Your task to perform on an android device: change text size in settings app Image 0: 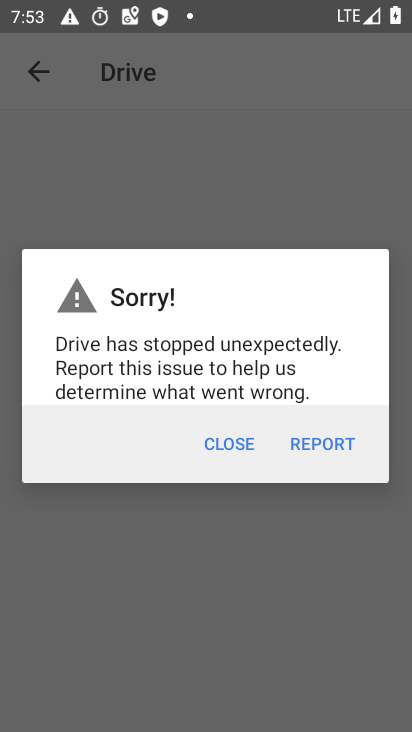
Step 0: drag from (146, 623) to (214, 172)
Your task to perform on an android device: change text size in settings app Image 1: 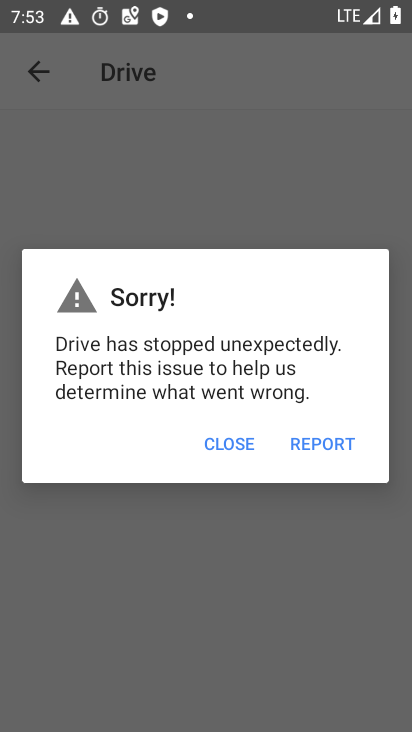
Step 1: press home button
Your task to perform on an android device: change text size in settings app Image 2: 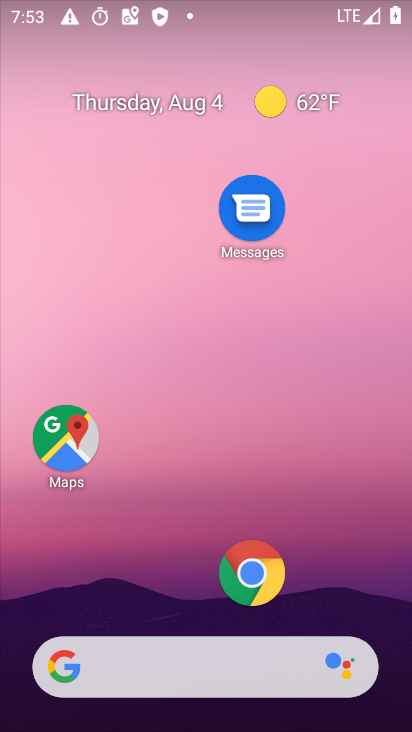
Step 2: drag from (152, 564) to (214, 62)
Your task to perform on an android device: change text size in settings app Image 3: 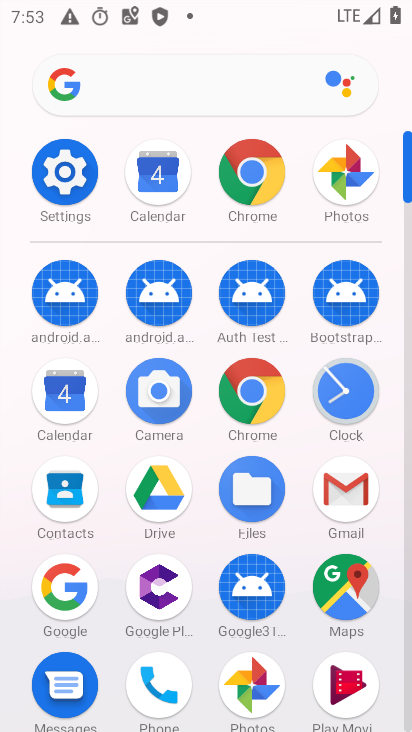
Step 3: click (72, 181)
Your task to perform on an android device: change text size in settings app Image 4: 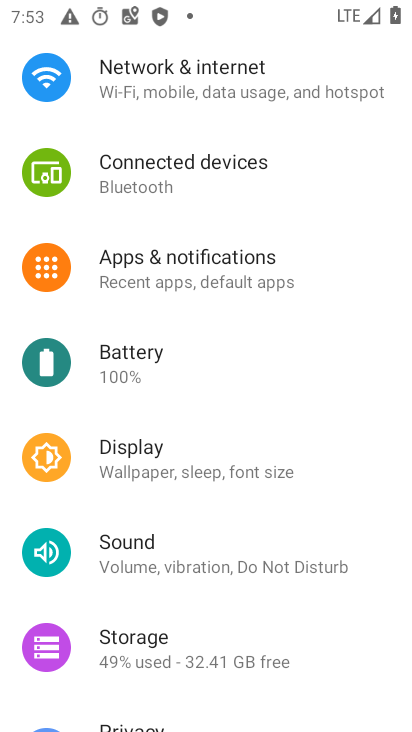
Step 4: click (158, 465)
Your task to perform on an android device: change text size in settings app Image 5: 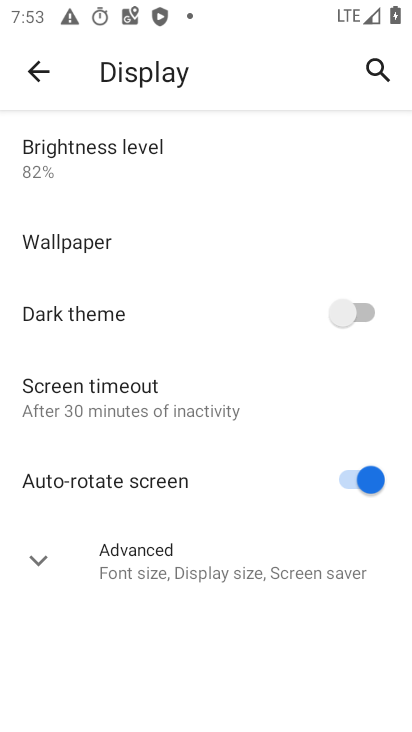
Step 5: click (133, 567)
Your task to perform on an android device: change text size in settings app Image 6: 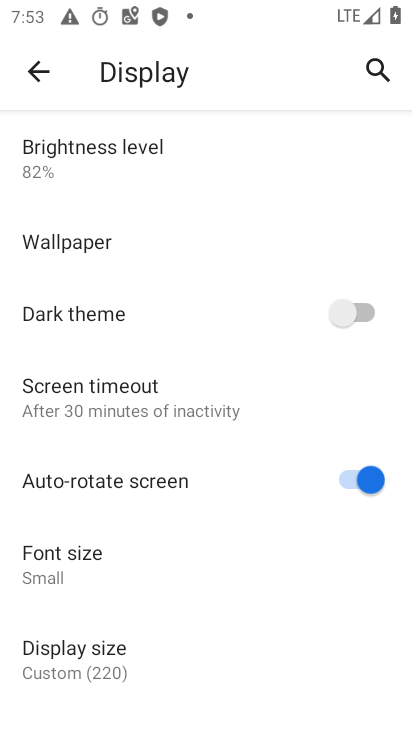
Step 6: click (63, 567)
Your task to perform on an android device: change text size in settings app Image 7: 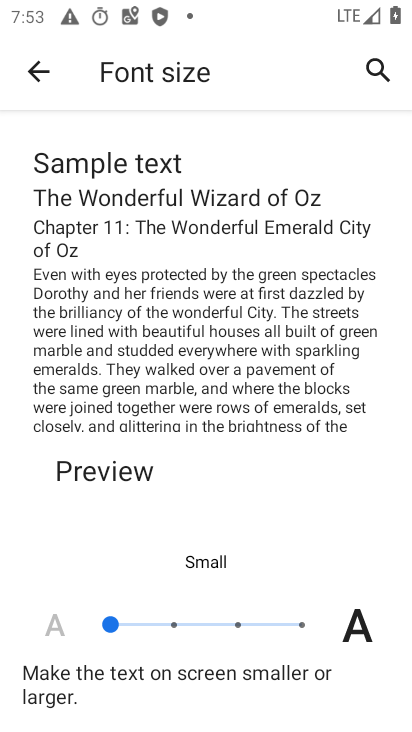
Step 7: click (175, 627)
Your task to perform on an android device: change text size in settings app Image 8: 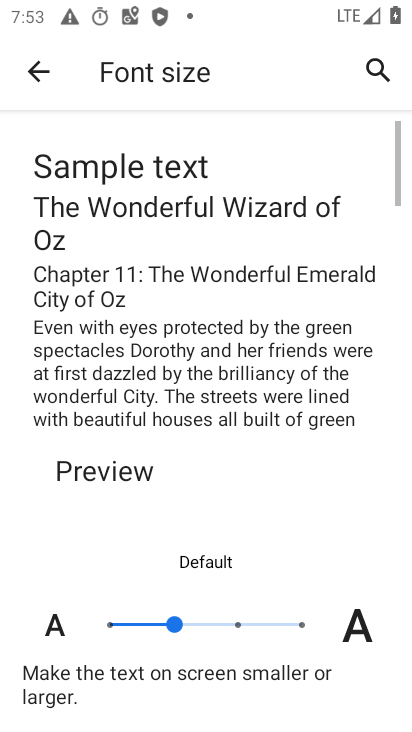
Step 8: click (243, 629)
Your task to perform on an android device: change text size in settings app Image 9: 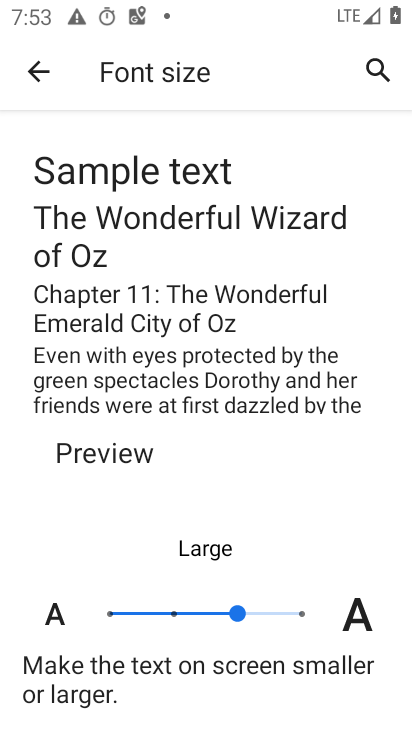
Step 9: task complete